Your task to perform on an android device: see tabs open on other devices in the chrome app Image 0: 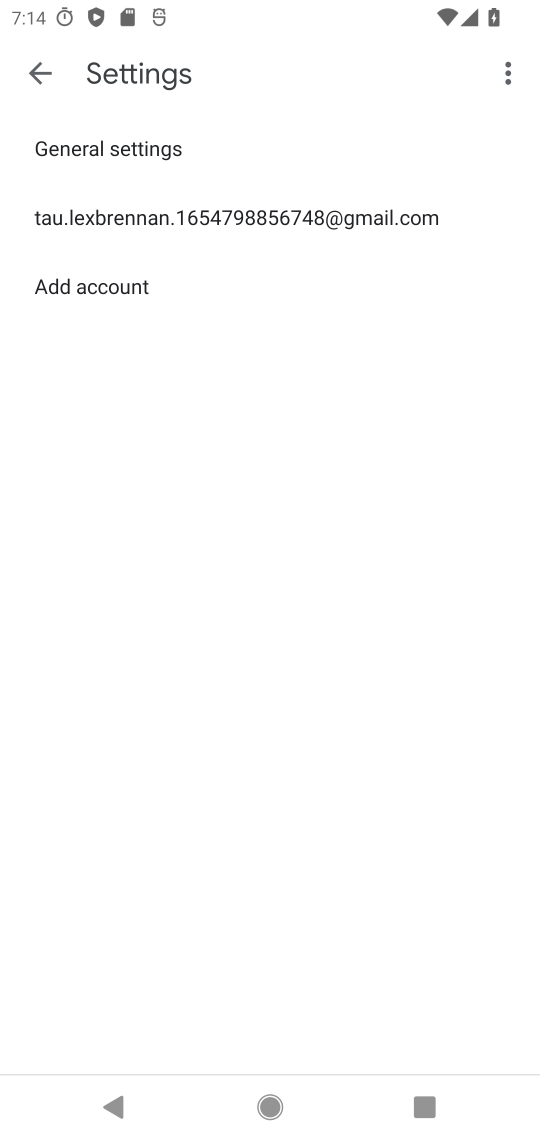
Step 0: click (45, 79)
Your task to perform on an android device: see tabs open on other devices in the chrome app Image 1: 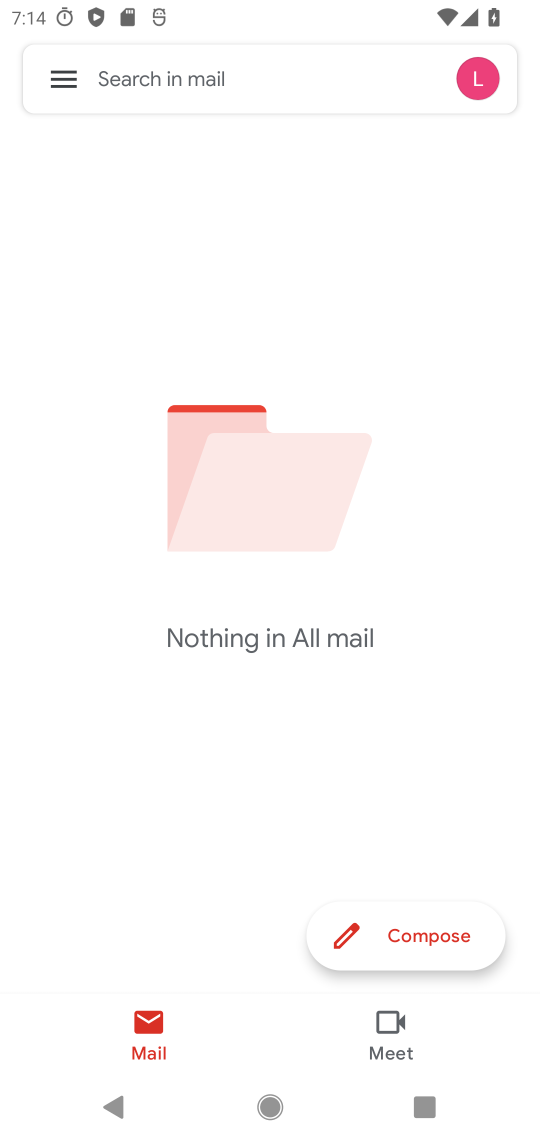
Step 1: press back button
Your task to perform on an android device: see tabs open on other devices in the chrome app Image 2: 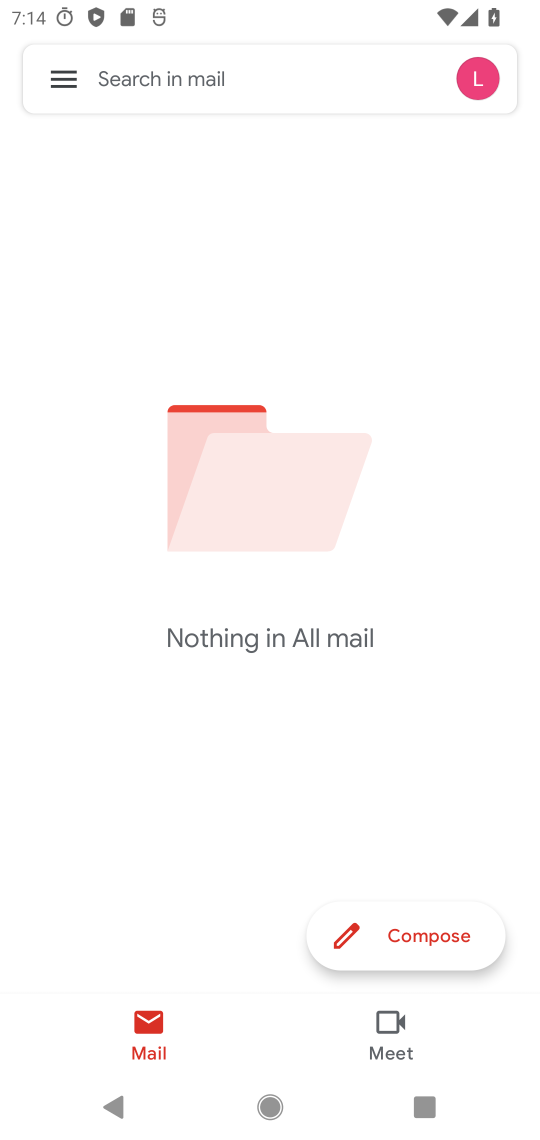
Step 2: press back button
Your task to perform on an android device: see tabs open on other devices in the chrome app Image 3: 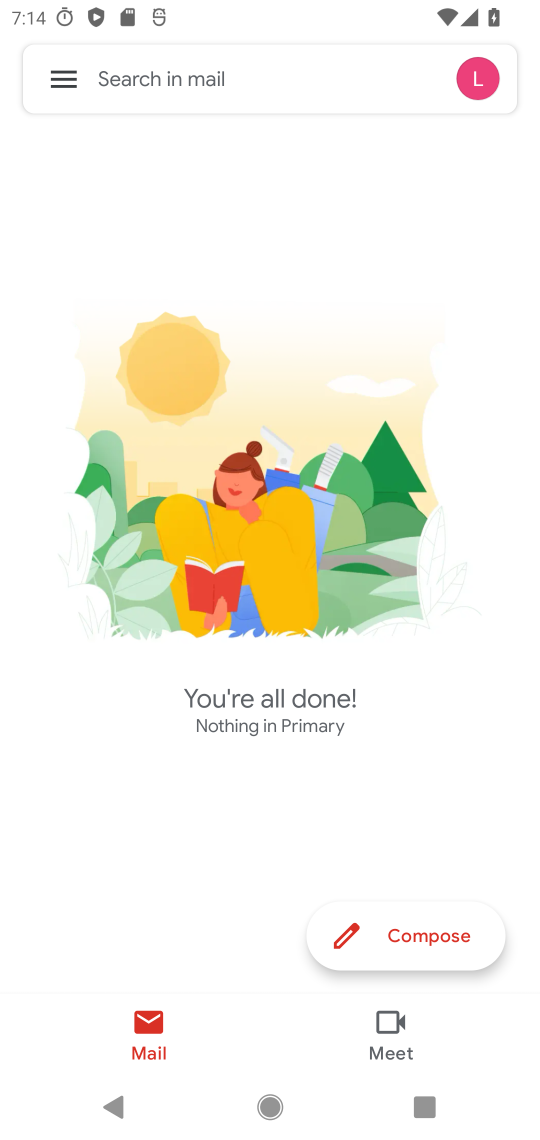
Step 3: press back button
Your task to perform on an android device: see tabs open on other devices in the chrome app Image 4: 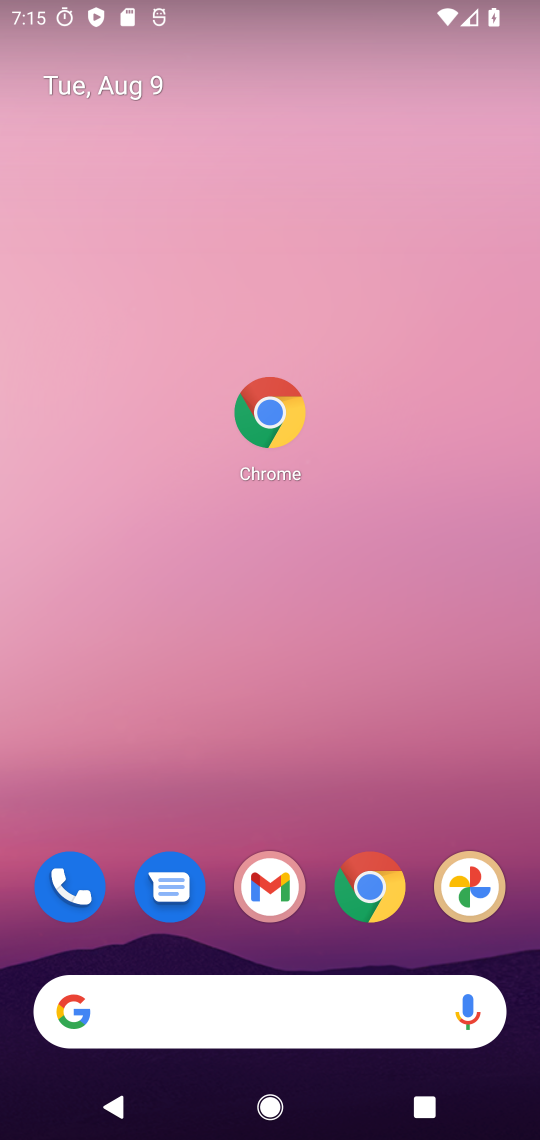
Step 4: drag from (209, 997) to (394, 27)
Your task to perform on an android device: see tabs open on other devices in the chrome app Image 5: 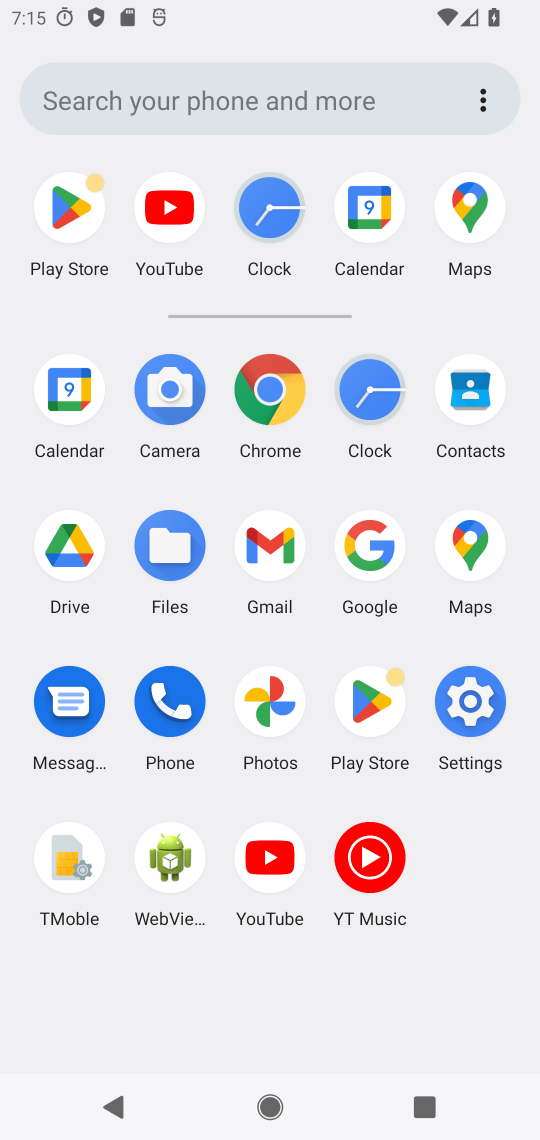
Step 5: click (281, 383)
Your task to perform on an android device: see tabs open on other devices in the chrome app Image 6: 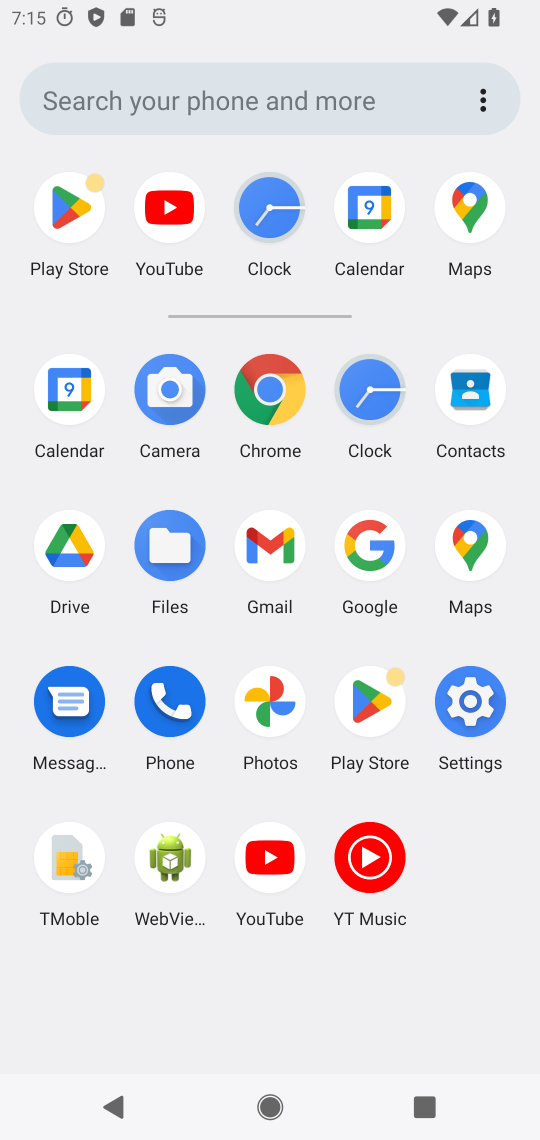
Step 6: click (277, 383)
Your task to perform on an android device: see tabs open on other devices in the chrome app Image 7: 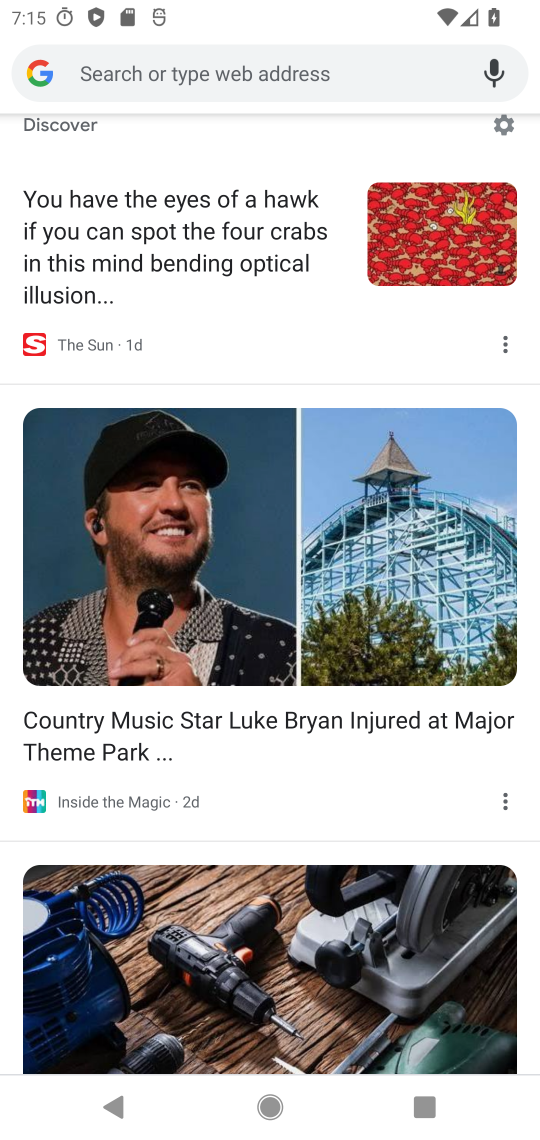
Step 7: click (261, 925)
Your task to perform on an android device: see tabs open on other devices in the chrome app Image 8: 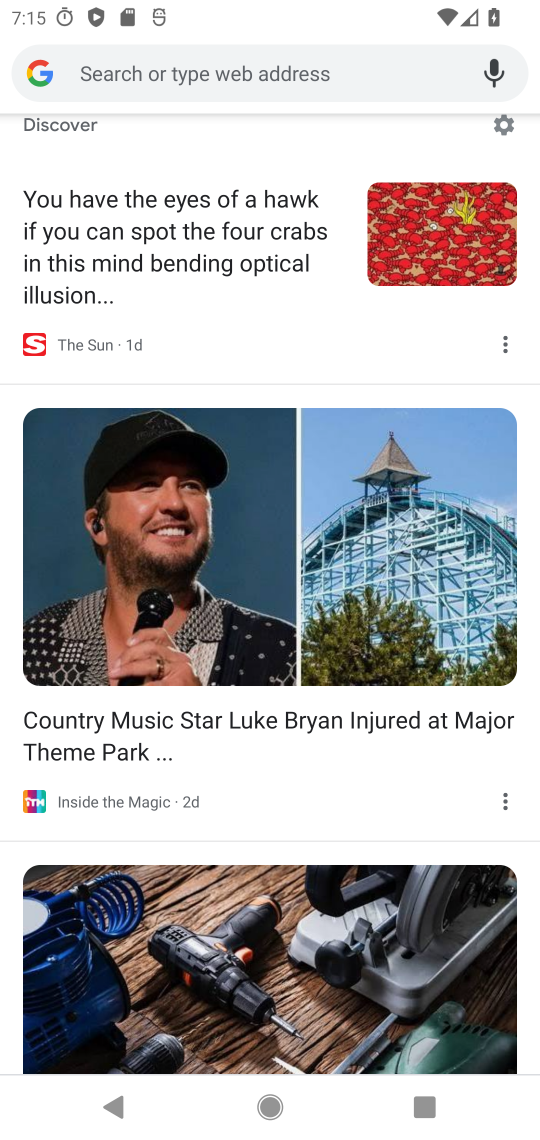
Step 8: task complete